Your task to perform on an android device: Do I have any events tomorrow? Image 0: 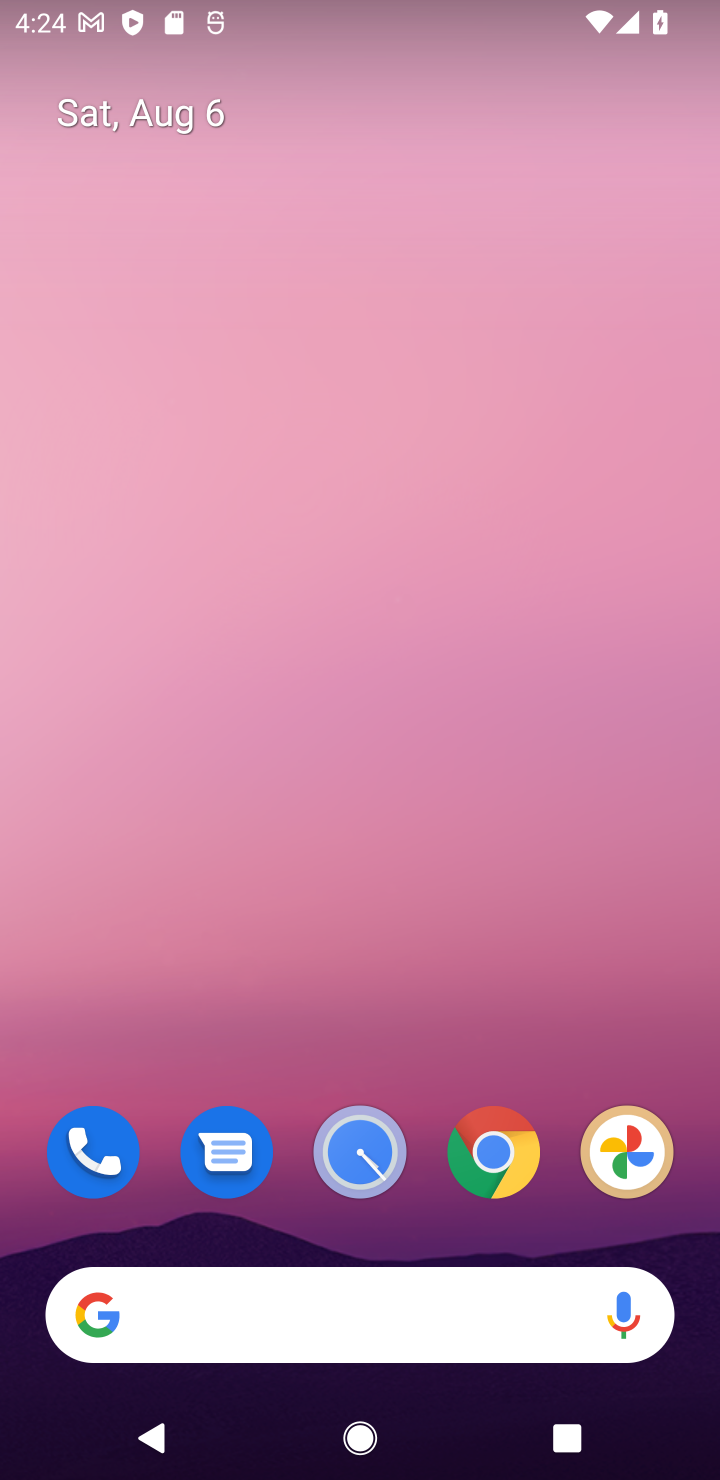
Step 0: drag from (385, 855) to (319, 132)
Your task to perform on an android device: Do I have any events tomorrow? Image 1: 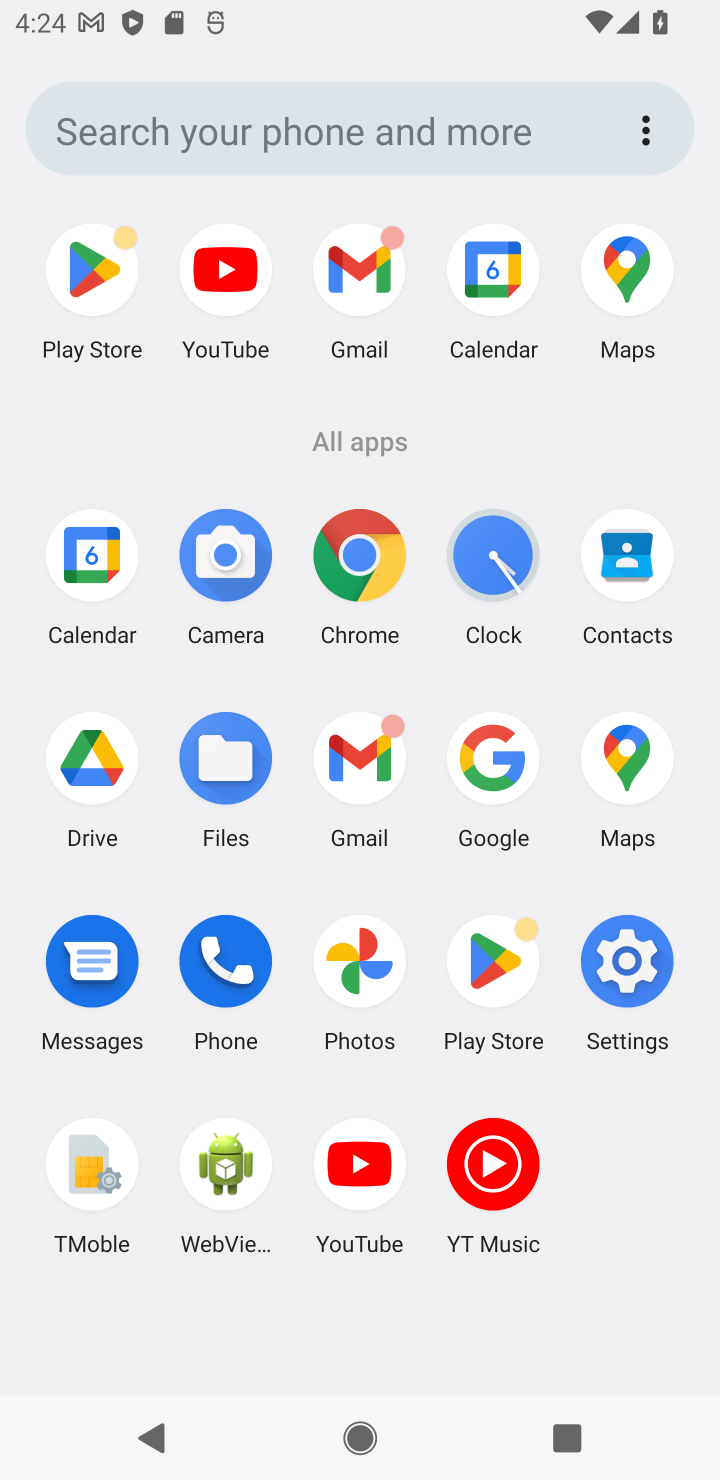
Step 1: click (93, 573)
Your task to perform on an android device: Do I have any events tomorrow? Image 2: 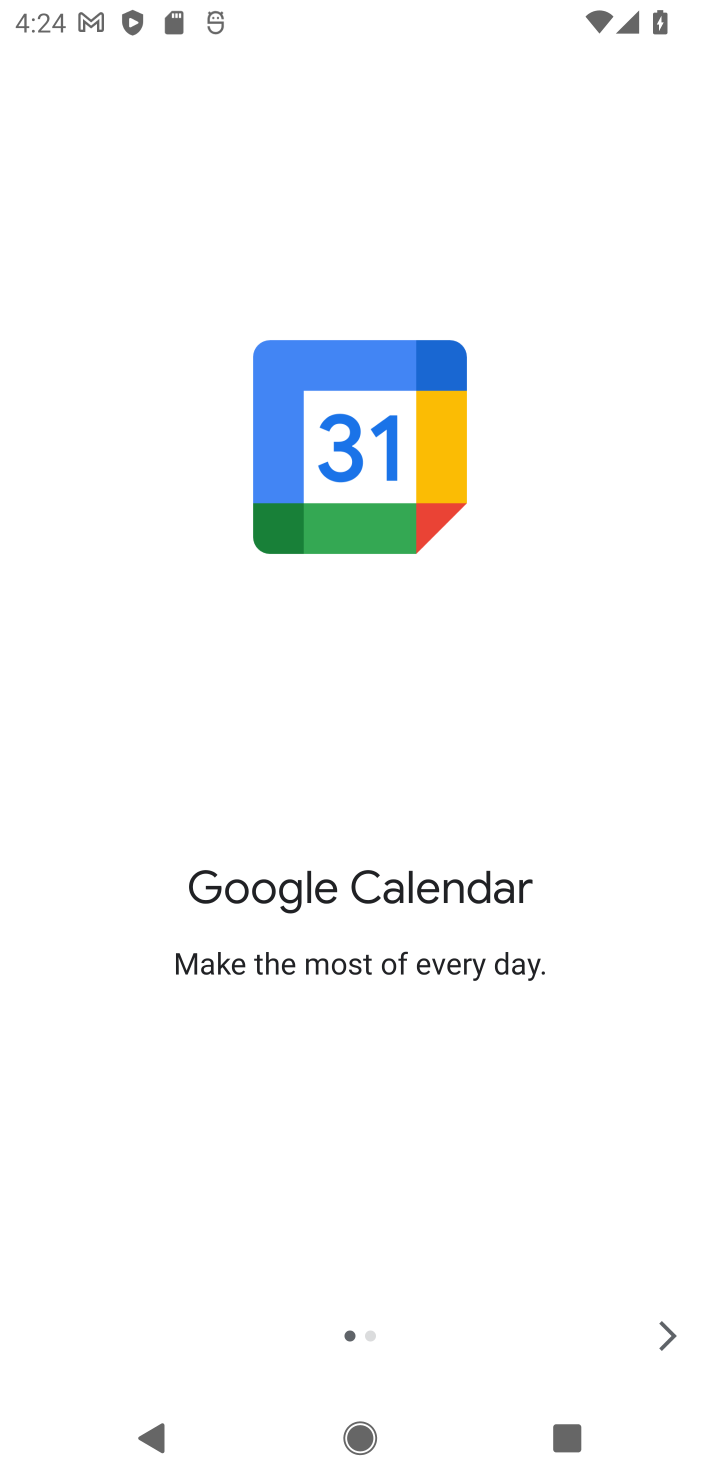
Step 2: click (682, 1335)
Your task to perform on an android device: Do I have any events tomorrow? Image 3: 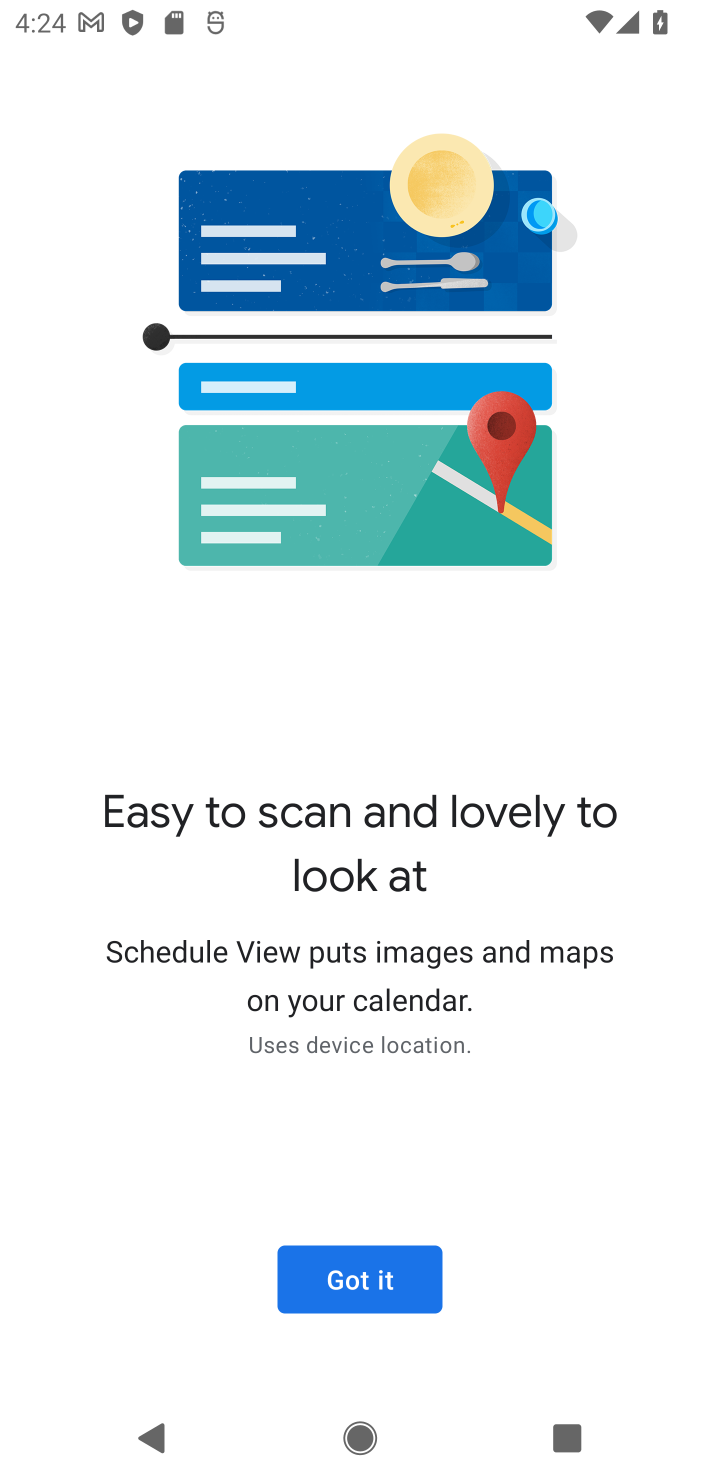
Step 3: click (400, 1307)
Your task to perform on an android device: Do I have any events tomorrow? Image 4: 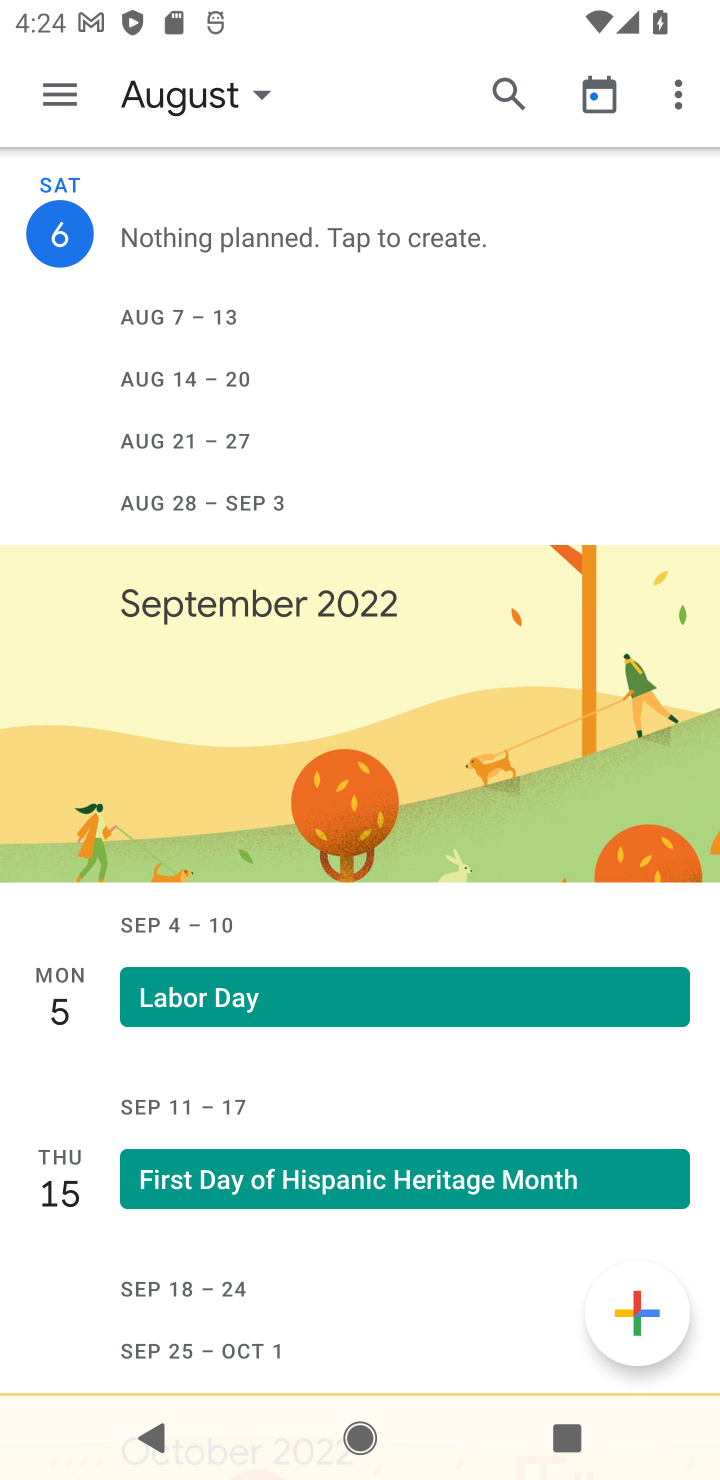
Step 4: click (188, 86)
Your task to perform on an android device: Do I have any events tomorrow? Image 5: 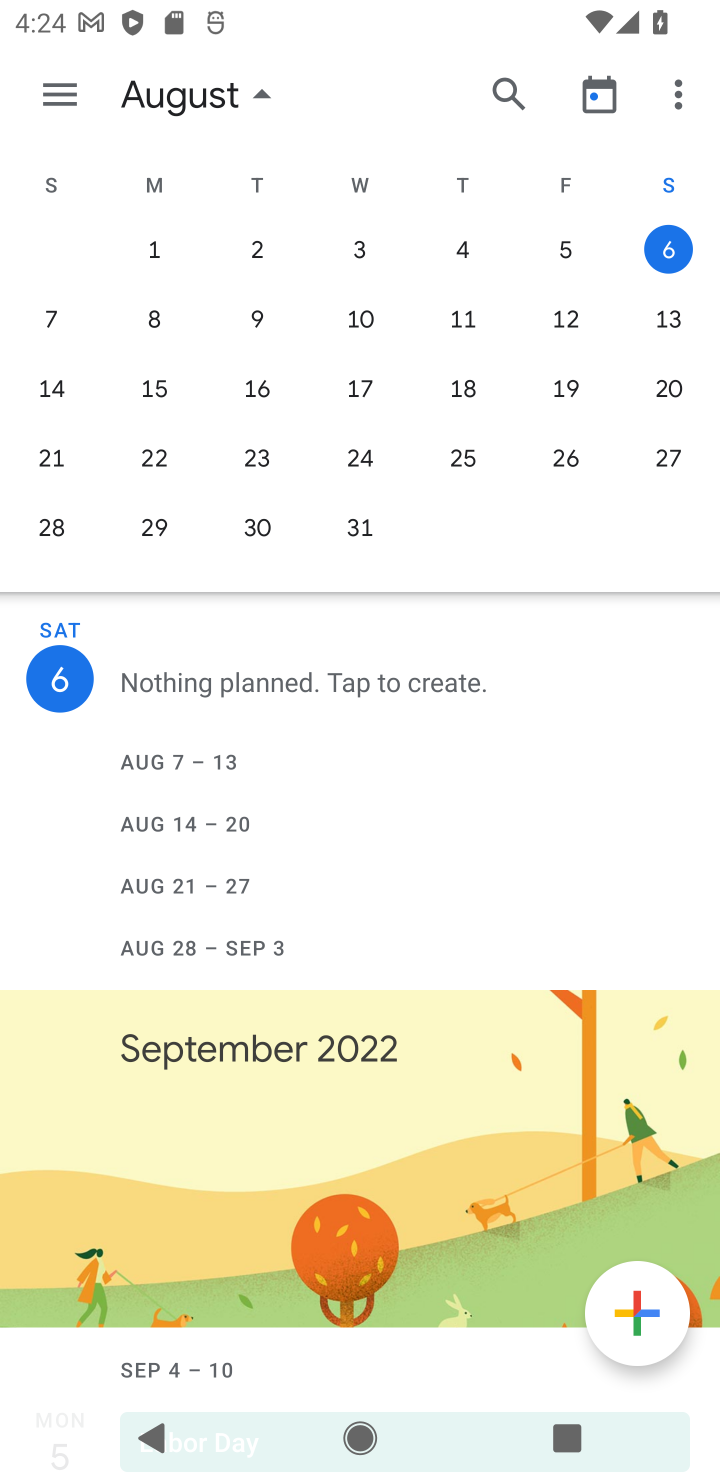
Step 5: click (51, 319)
Your task to perform on an android device: Do I have any events tomorrow? Image 6: 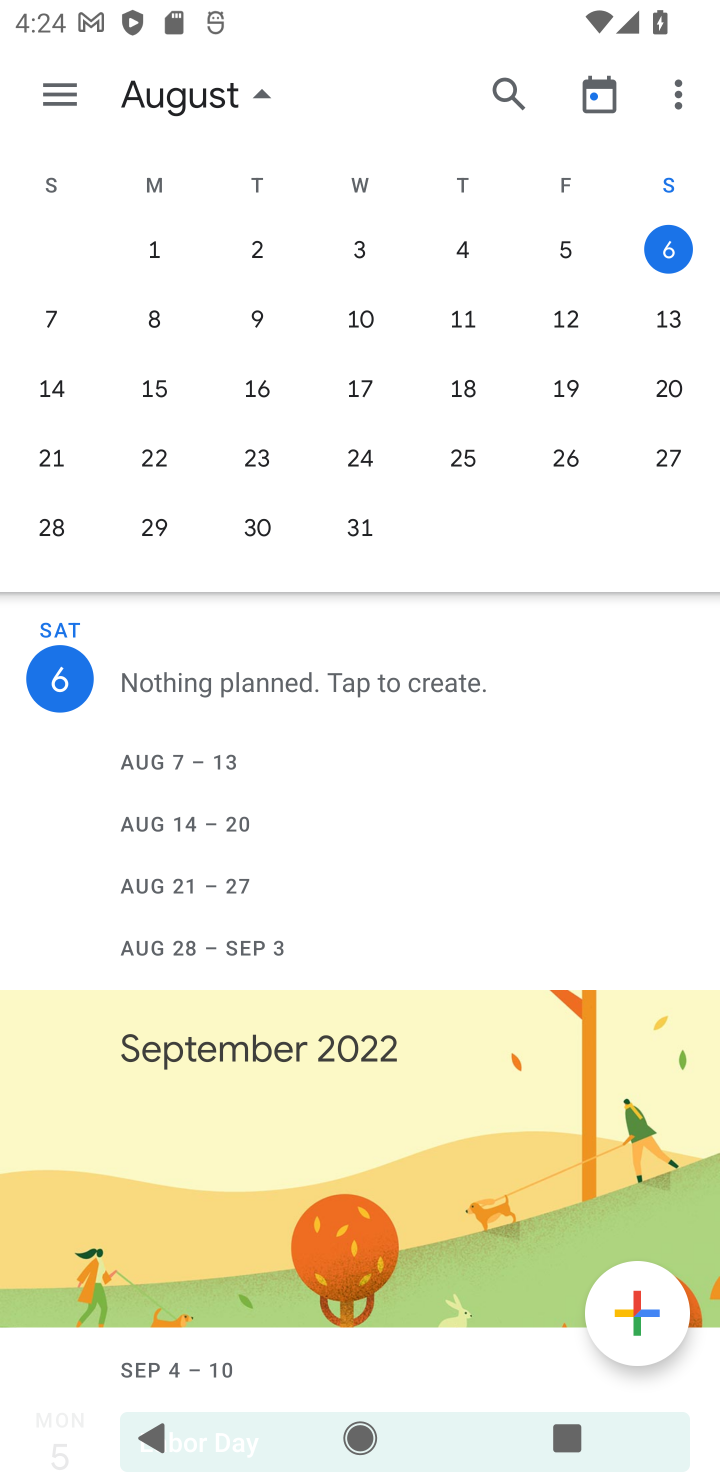
Step 6: click (53, 319)
Your task to perform on an android device: Do I have any events tomorrow? Image 7: 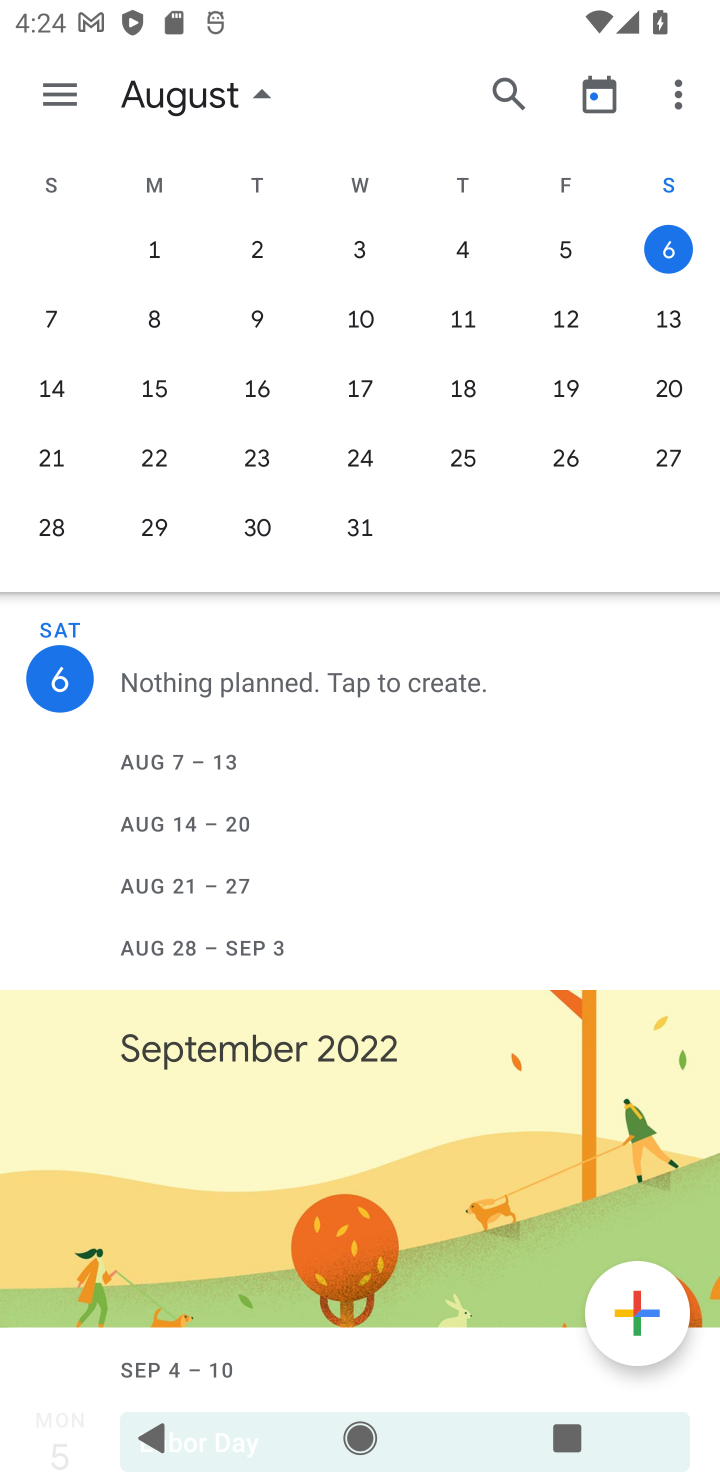
Step 7: click (53, 319)
Your task to perform on an android device: Do I have any events tomorrow? Image 8: 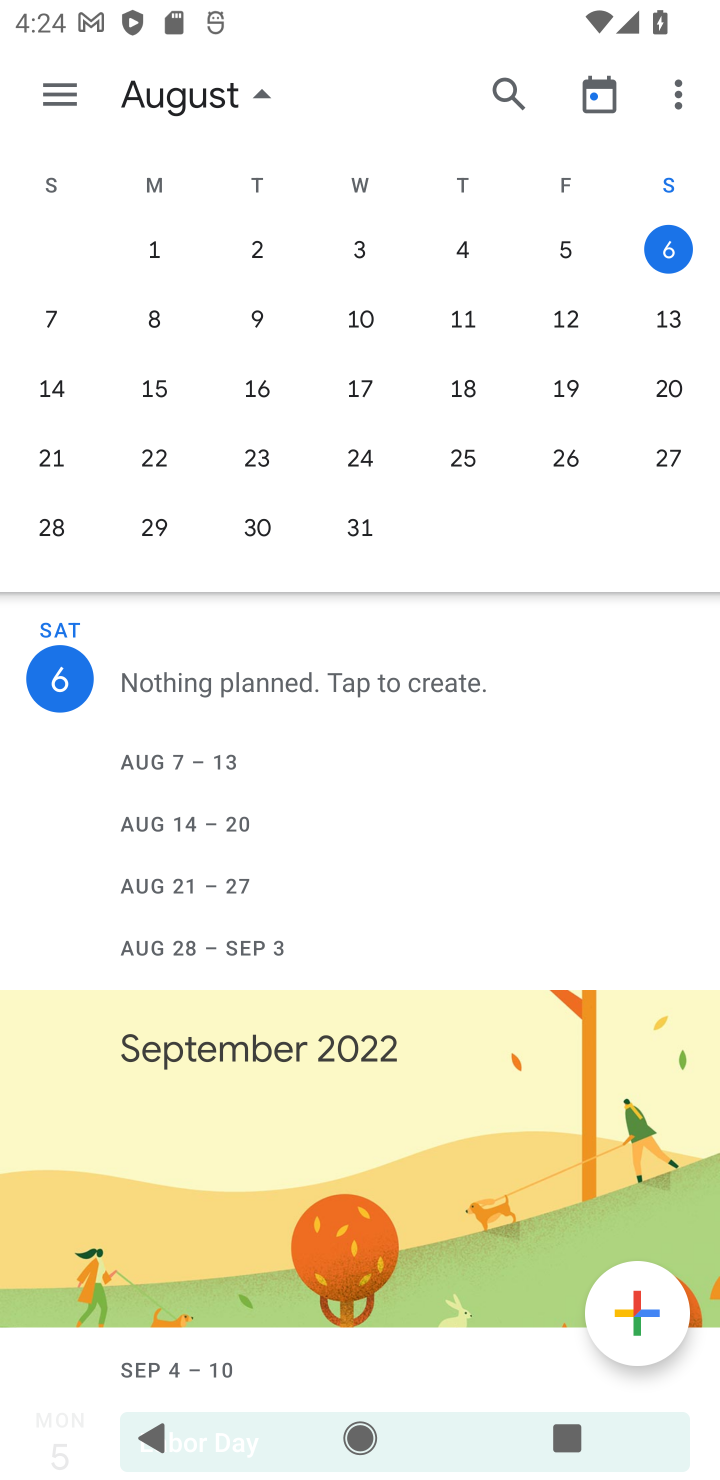
Step 8: click (42, 78)
Your task to perform on an android device: Do I have any events tomorrow? Image 9: 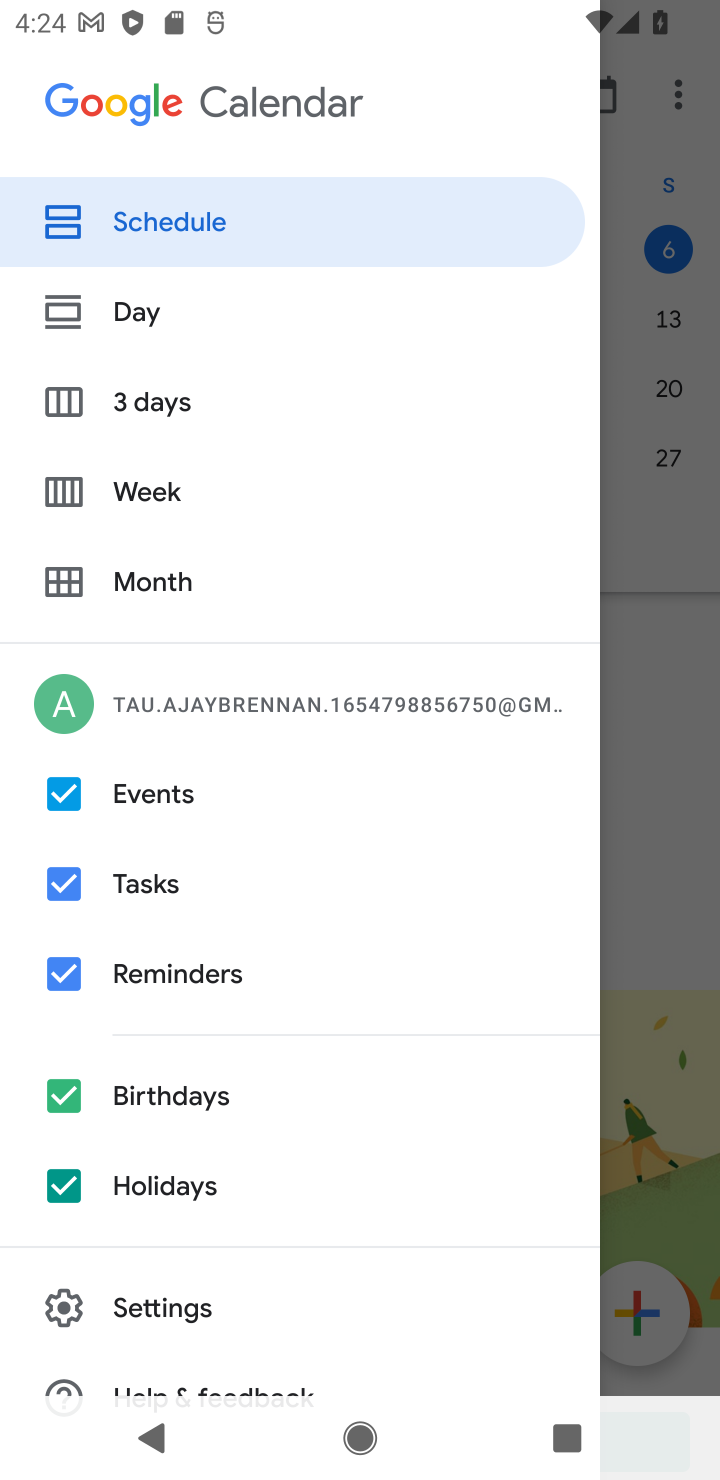
Step 9: click (135, 391)
Your task to perform on an android device: Do I have any events tomorrow? Image 10: 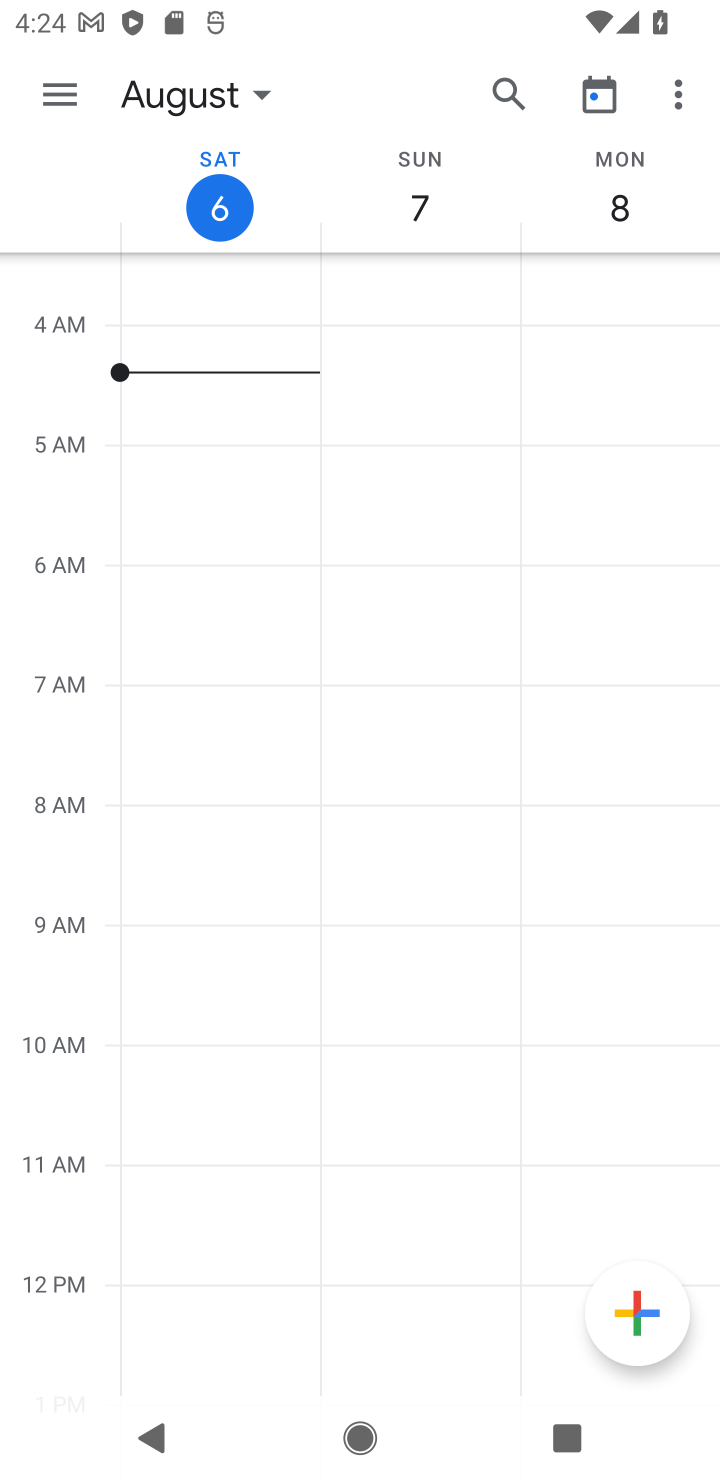
Step 10: click (417, 204)
Your task to perform on an android device: Do I have any events tomorrow? Image 11: 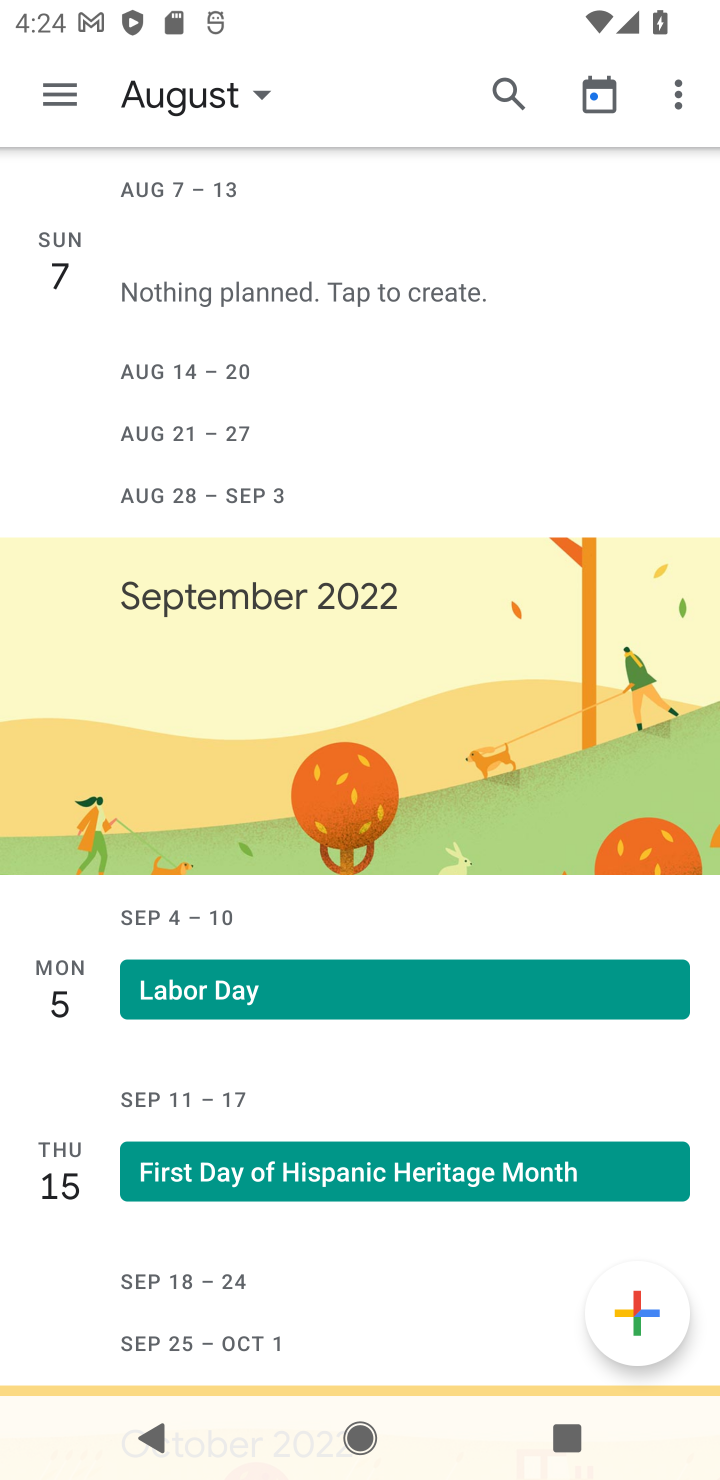
Step 11: task complete